Your task to perform on an android device: Open the Play Movies app and select the watchlist tab. Image 0: 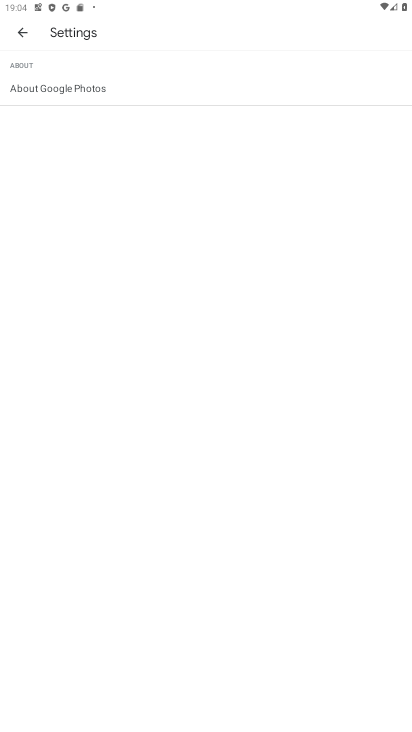
Step 0: press home button
Your task to perform on an android device: Open the Play Movies app and select the watchlist tab. Image 1: 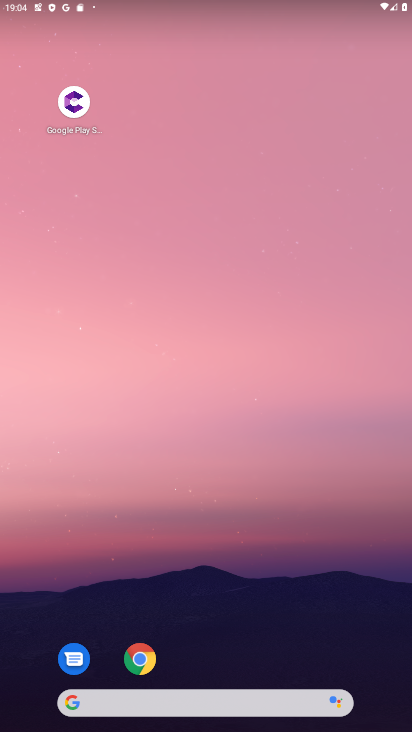
Step 1: click (216, 91)
Your task to perform on an android device: Open the Play Movies app and select the watchlist tab. Image 2: 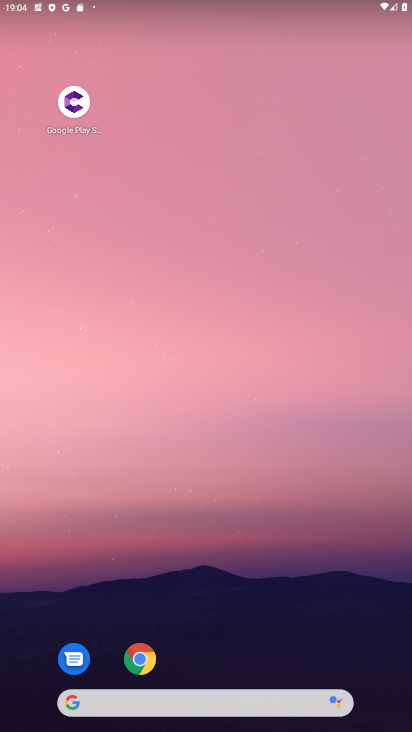
Step 2: drag from (190, 594) to (207, 345)
Your task to perform on an android device: Open the Play Movies app and select the watchlist tab. Image 3: 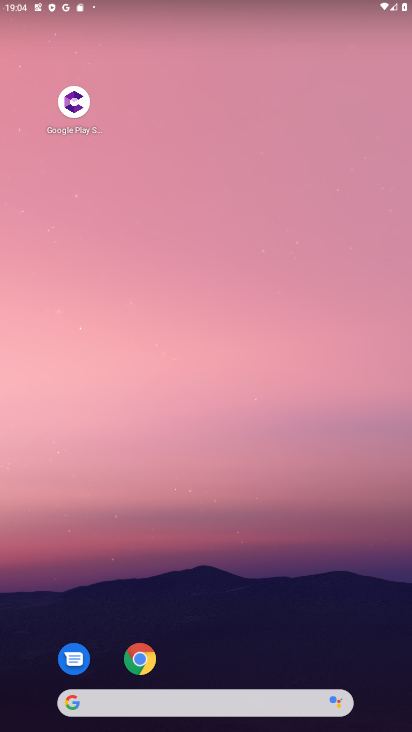
Step 3: drag from (179, 576) to (231, 73)
Your task to perform on an android device: Open the Play Movies app and select the watchlist tab. Image 4: 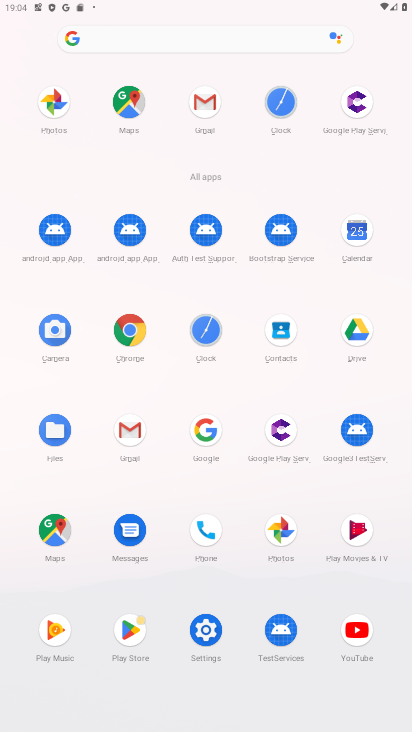
Step 4: click (366, 559)
Your task to perform on an android device: Open the Play Movies app and select the watchlist tab. Image 5: 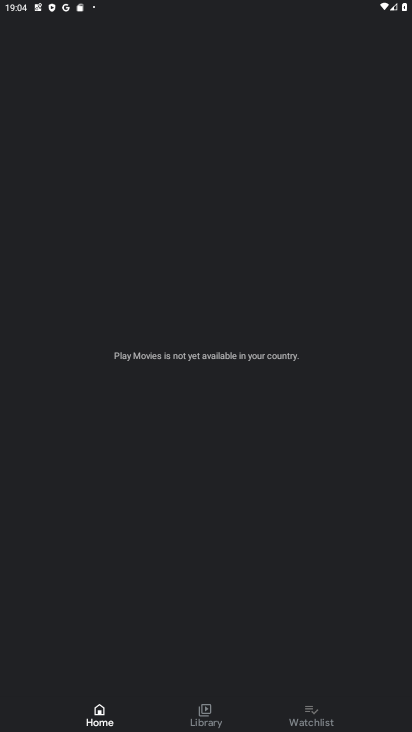
Step 5: click (310, 726)
Your task to perform on an android device: Open the Play Movies app and select the watchlist tab. Image 6: 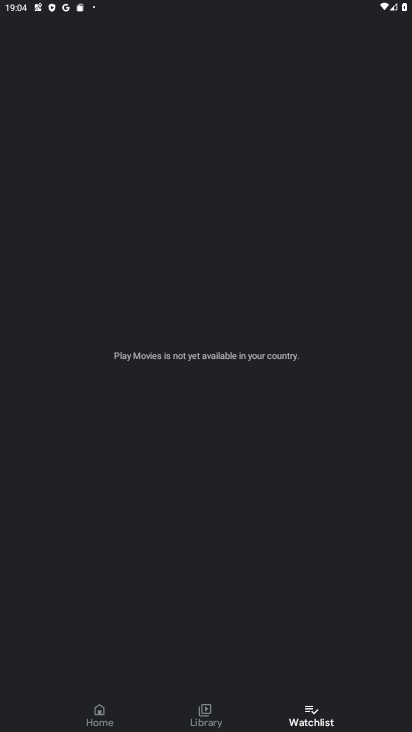
Step 6: task complete